Your task to perform on an android device: Go to network settings Image 0: 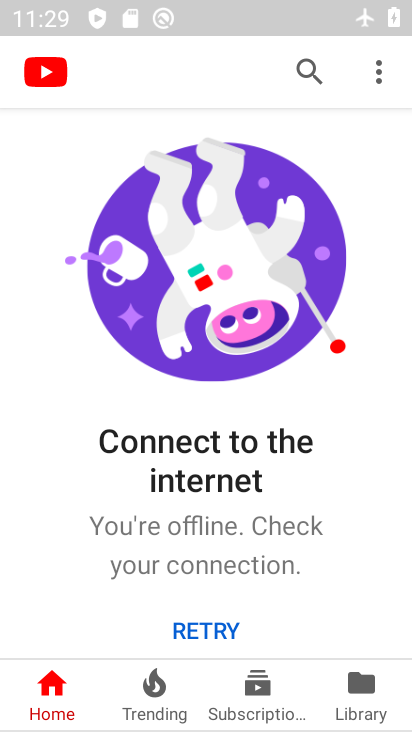
Step 0: press home button
Your task to perform on an android device: Go to network settings Image 1: 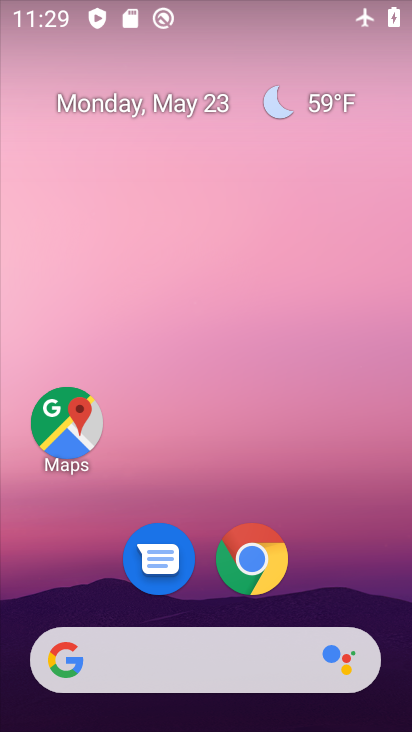
Step 1: drag from (409, 648) to (306, 51)
Your task to perform on an android device: Go to network settings Image 2: 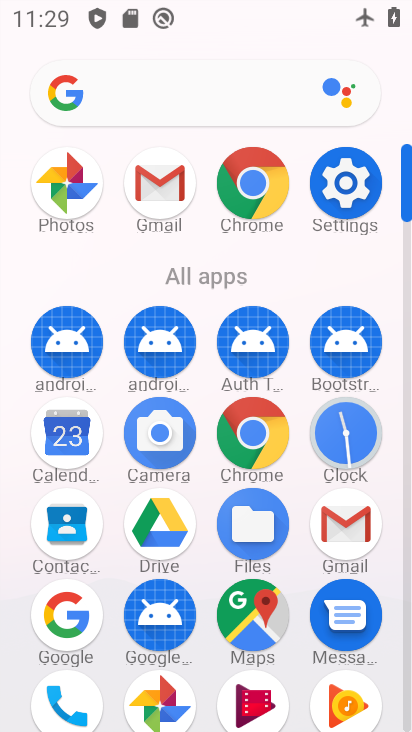
Step 2: click (359, 213)
Your task to perform on an android device: Go to network settings Image 3: 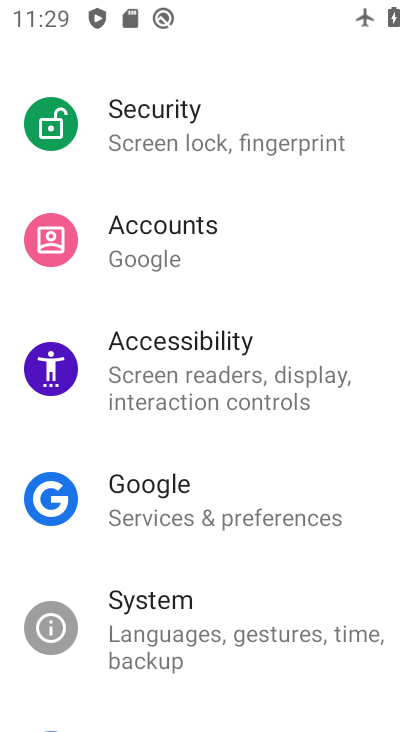
Step 3: drag from (202, 143) to (223, 688)
Your task to perform on an android device: Go to network settings Image 4: 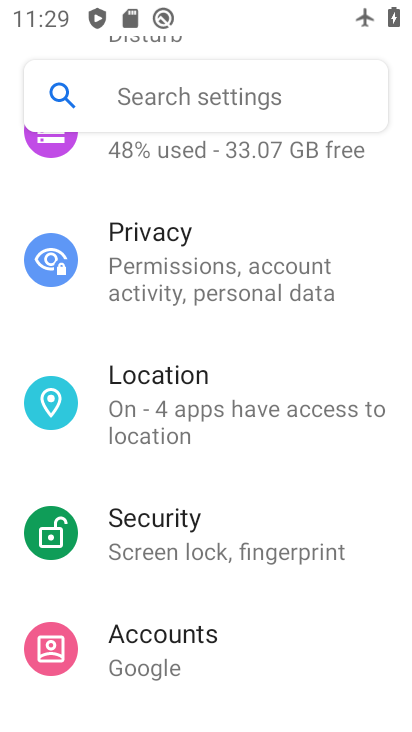
Step 4: drag from (227, 224) to (264, 726)
Your task to perform on an android device: Go to network settings Image 5: 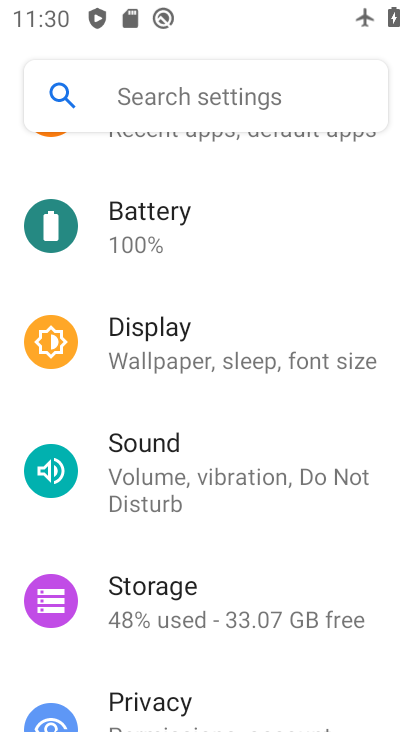
Step 5: drag from (200, 239) to (226, 728)
Your task to perform on an android device: Go to network settings Image 6: 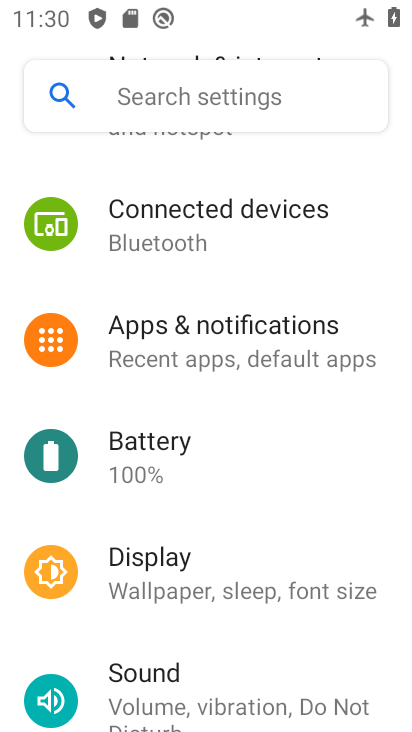
Step 6: drag from (210, 235) to (212, 620)
Your task to perform on an android device: Go to network settings Image 7: 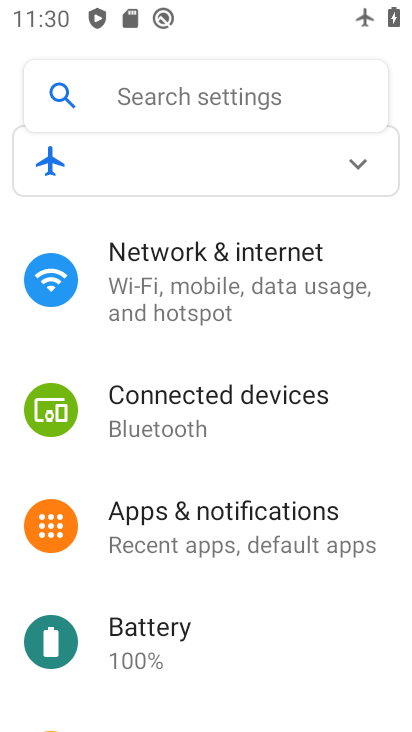
Step 7: click (257, 277)
Your task to perform on an android device: Go to network settings Image 8: 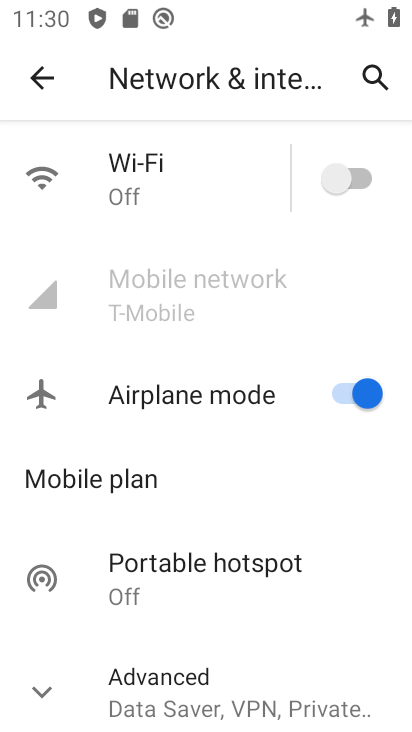
Step 8: task complete